Your task to perform on an android device: install app "Speedtest by Ookla" Image 0: 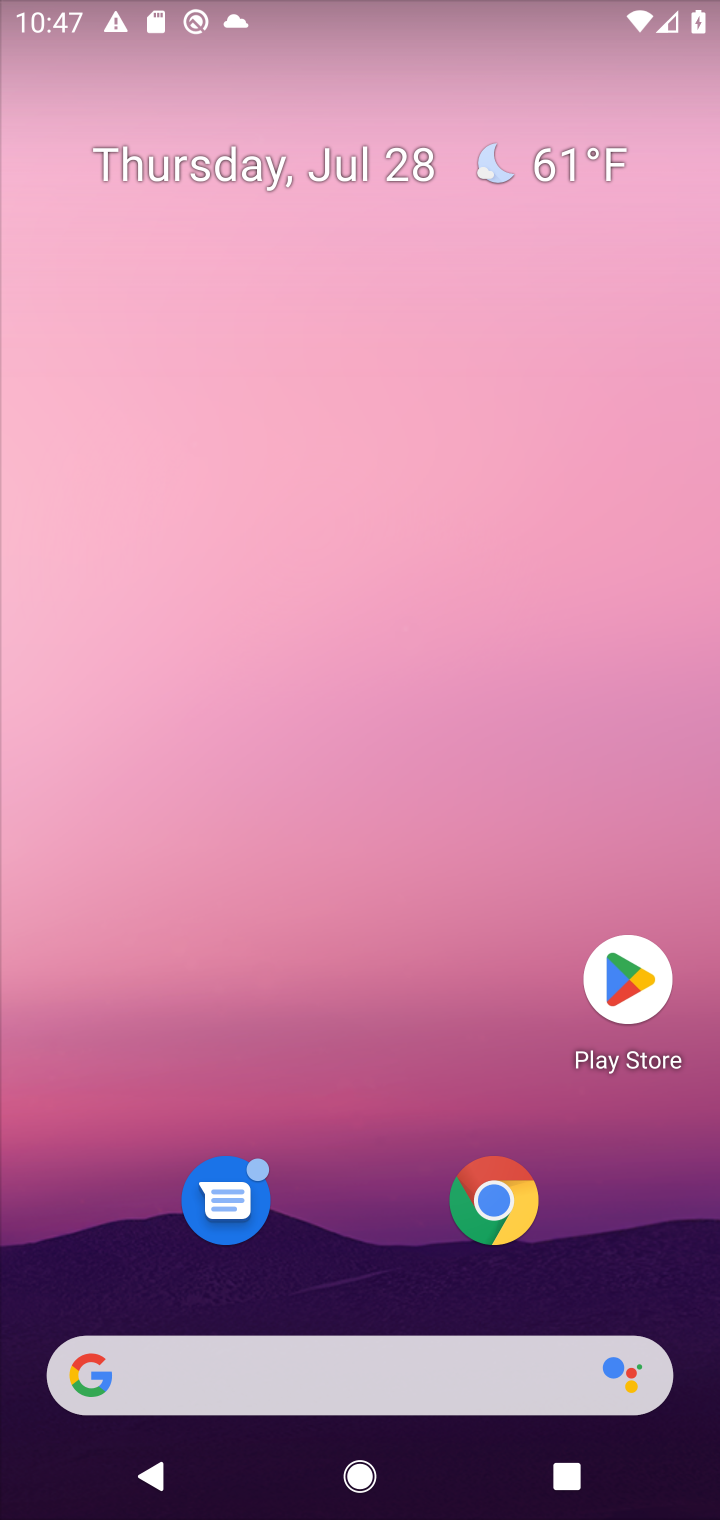
Step 0: click (596, 964)
Your task to perform on an android device: install app "Speedtest by Ookla" Image 1: 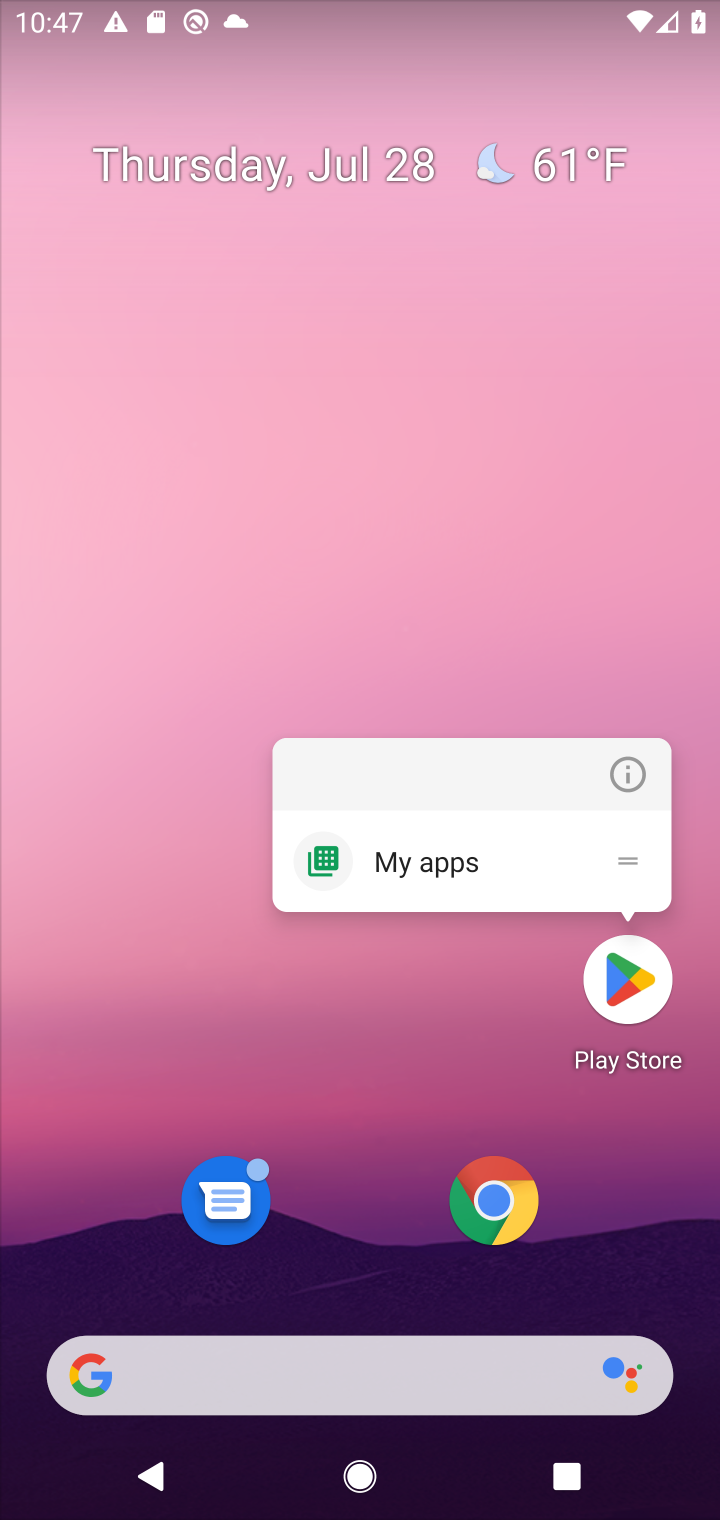
Step 1: click (613, 984)
Your task to perform on an android device: install app "Speedtest by Ookla" Image 2: 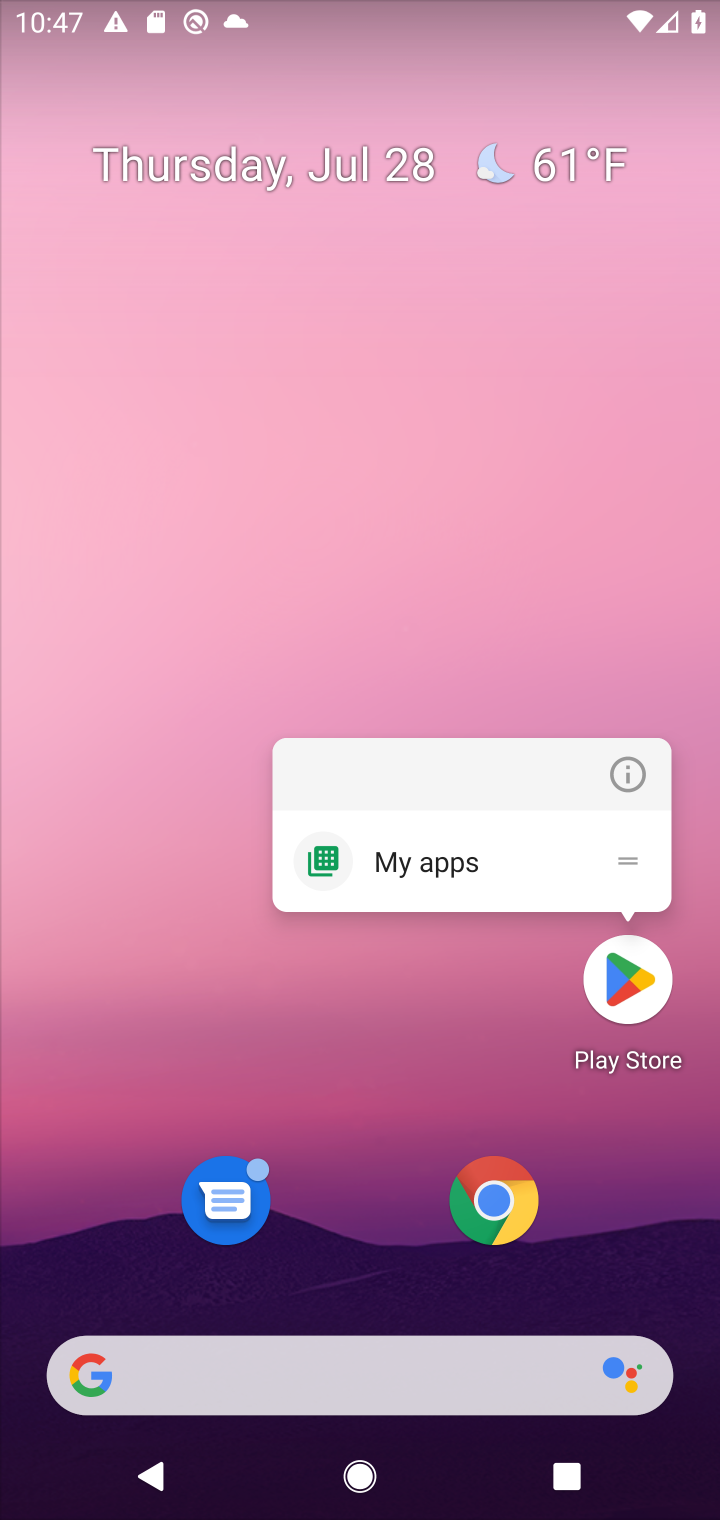
Step 2: click (613, 990)
Your task to perform on an android device: install app "Speedtest by Ookla" Image 3: 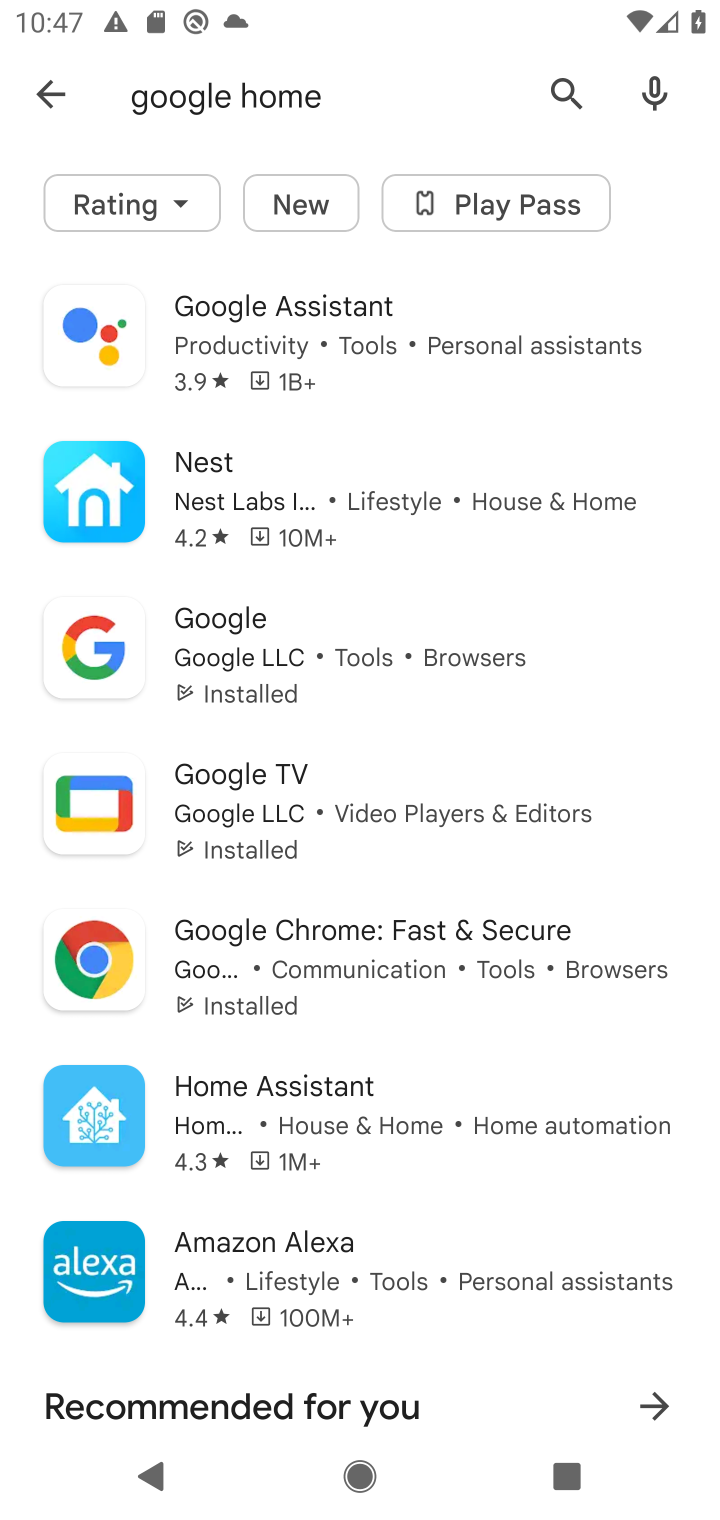
Step 3: click (573, 81)
Your task to perform on an android device: install app "Speedtest by Ookla" Image 4: 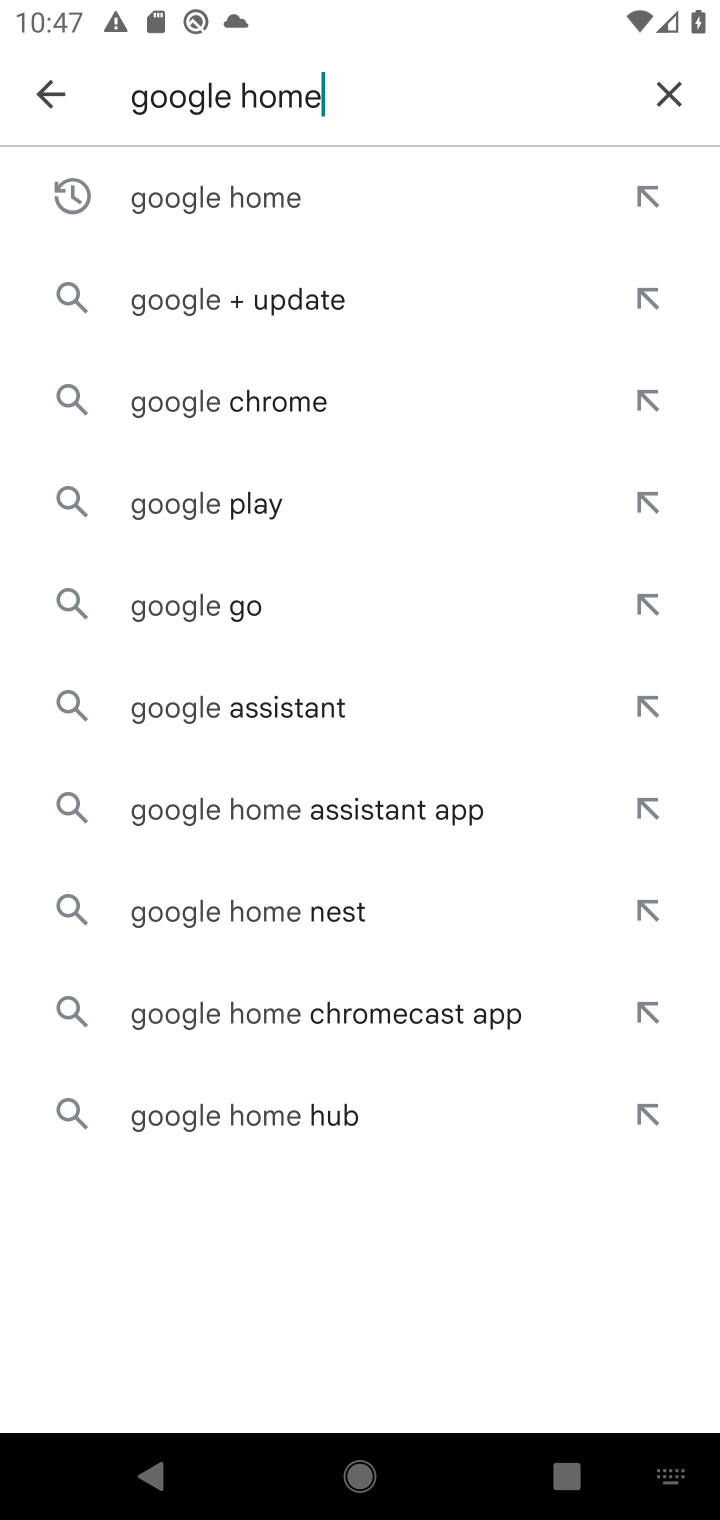
Step 4: click (672, 85)
Your task to perform on an android device: install app "Speedtest by Ookla" Image 5: 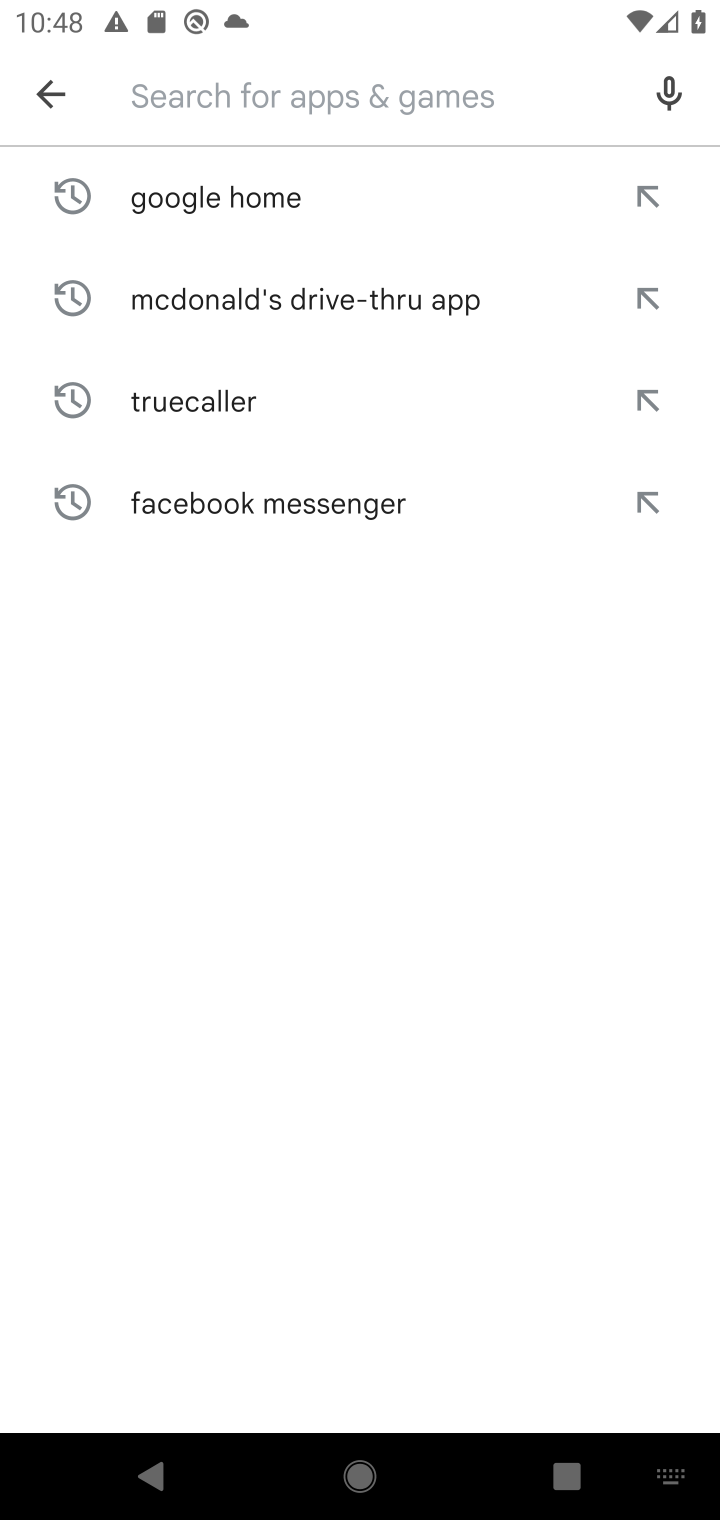
Step 5: type "Speedtest by Ookla"
Your task to perform on an android device: install app "Speedtest by Ookla" Image 6: 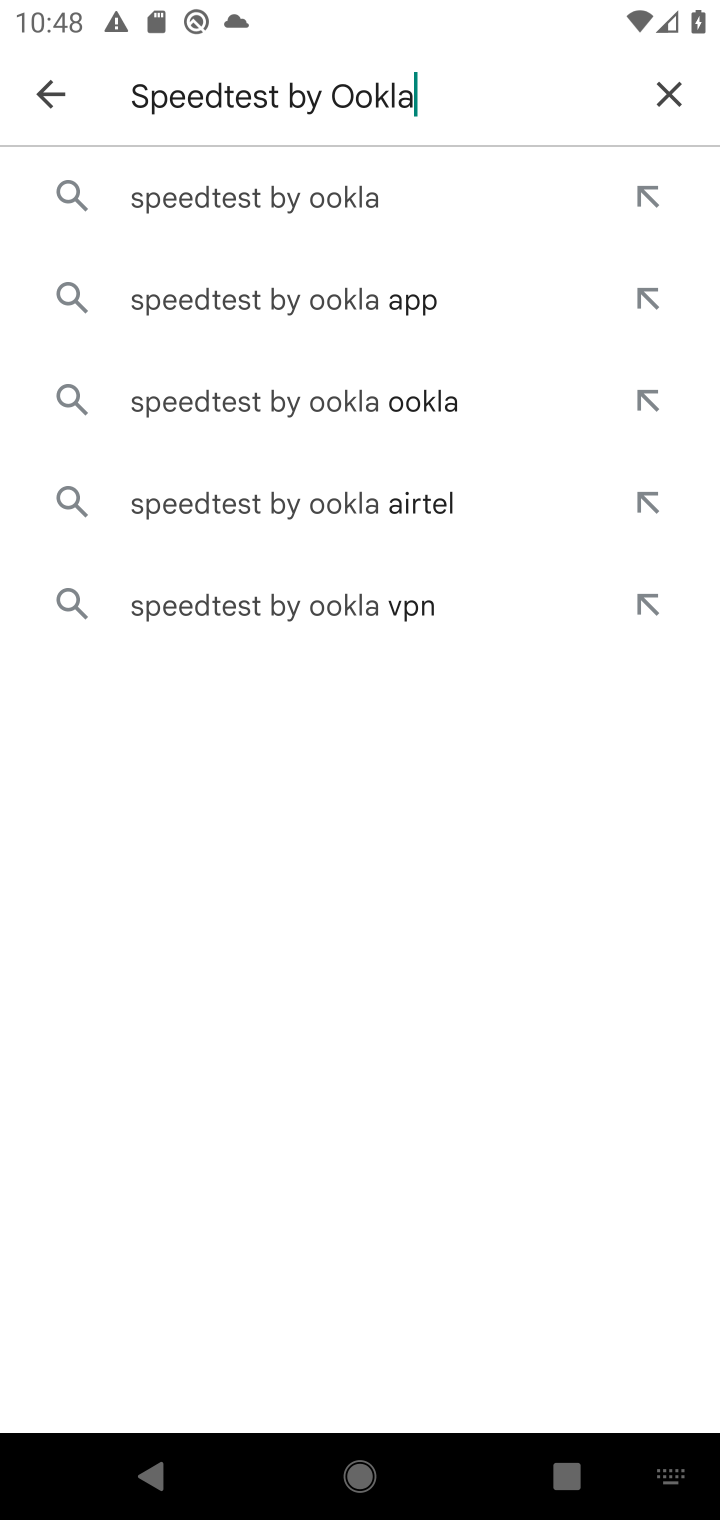
Step 6: click (311, 180)
Your task to perform on an android device: install app "Speedtest by Ookla" Image 7: 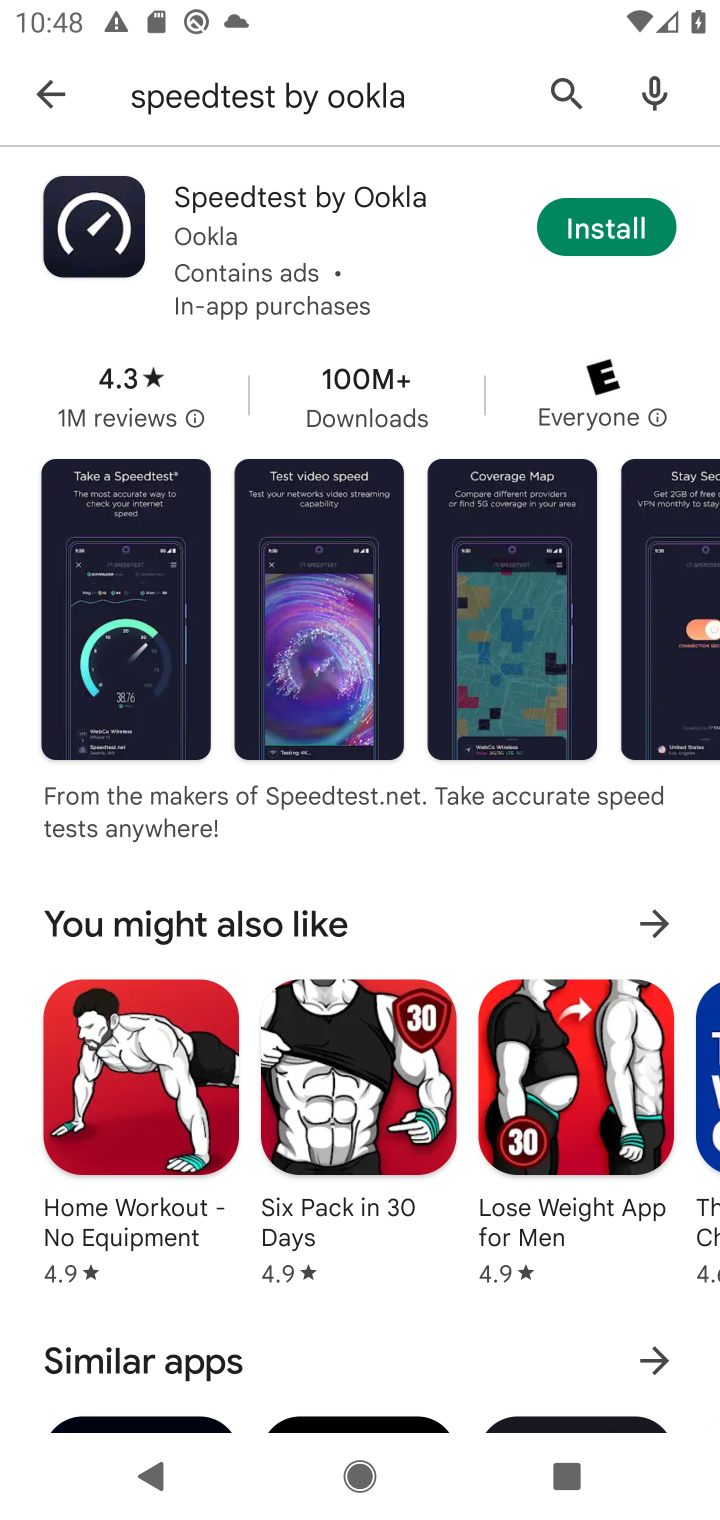
Step 7: click (603, 229)
Your task to perform on an android device: install app "Speedtest by Ookla" Image 8: 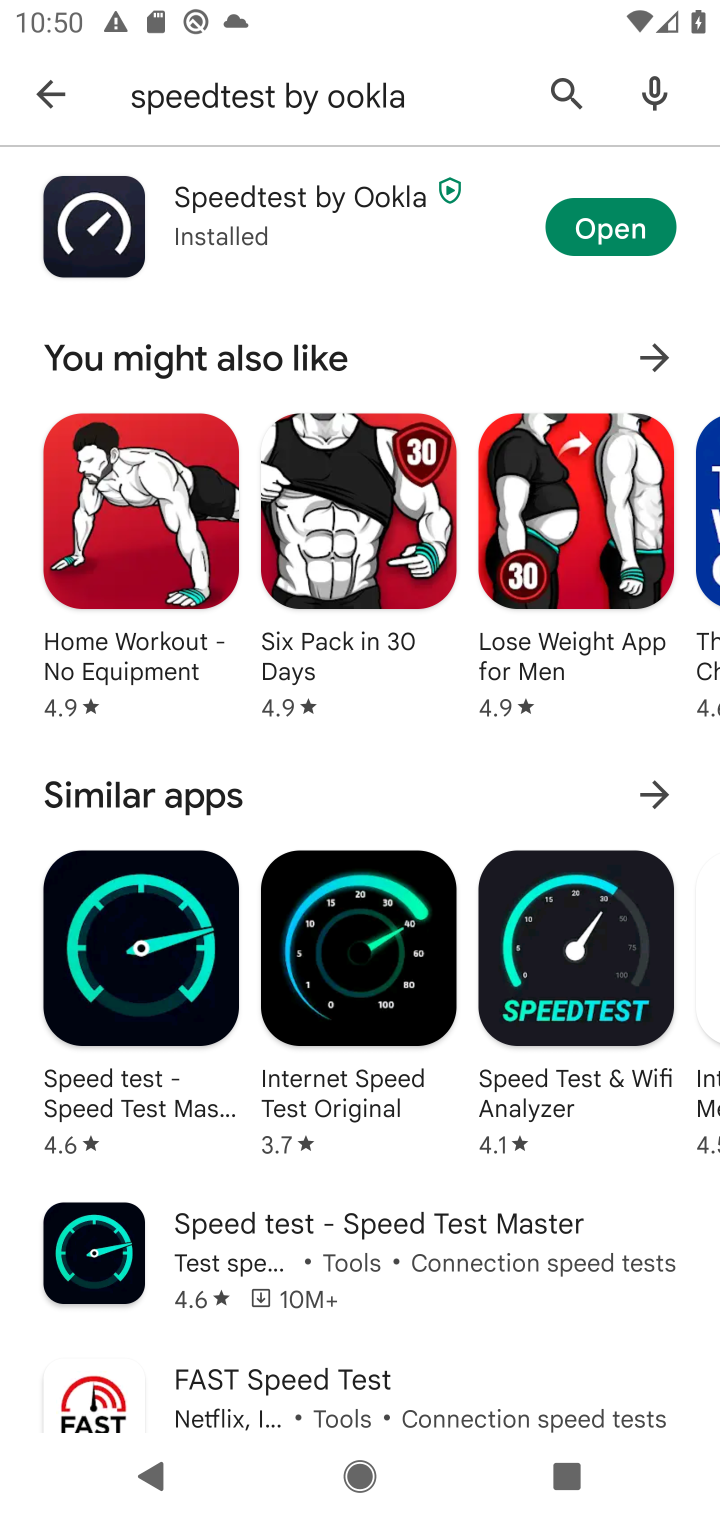
Step 8: task complete